Your task to perform on an android device: Open calendar and show me the second week of next month Image 0: 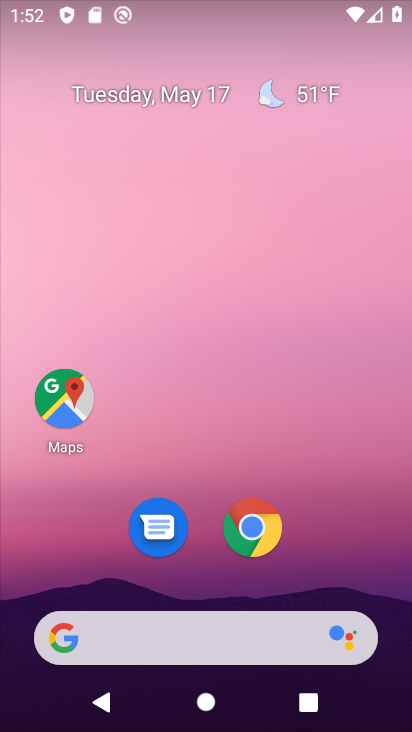
Step 0: drag from (341, 575) to (280, 25)
Your task to perform on an android device: Open calendar and show me the second week of next month Image 1: 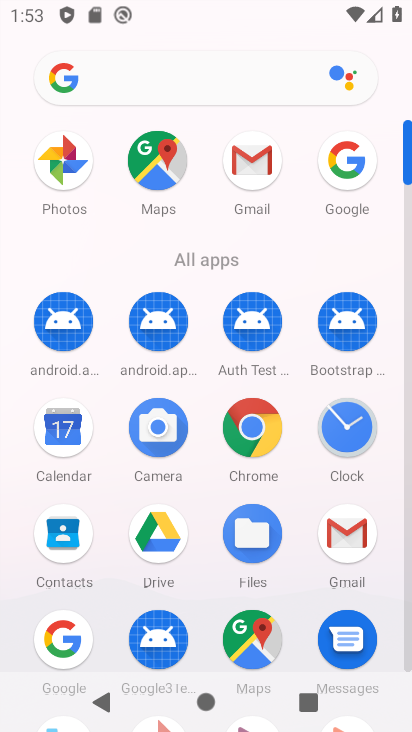
Step 1: drag from (201, 503) to (209, 289)
Your task to perform on an android device: Open calendar and show me the second week of next month Image 2: 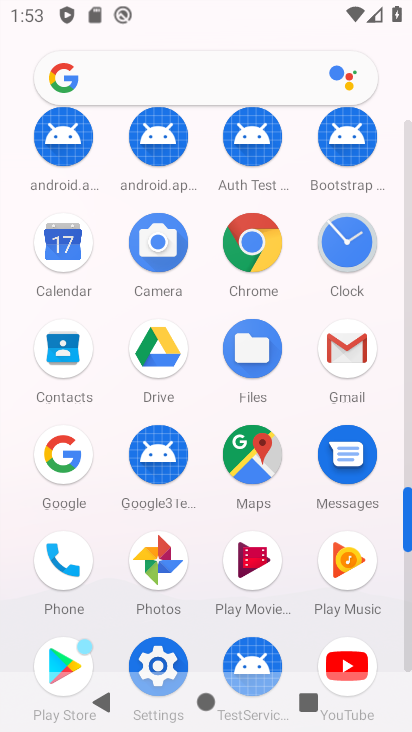
Step 2: click (60, 244)
Your task to perform on an android device: Open calendar and show me the second week of next month Image 3: 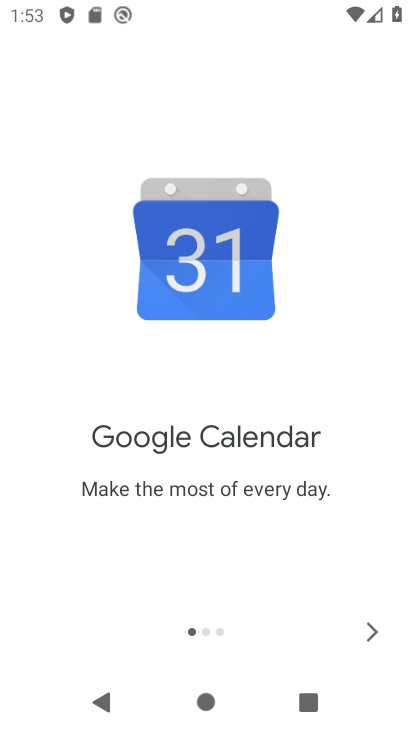
Step 3: click (373, 626)
Your task to perform on an android device: Open calendar and show me the second week of next month Image 4: 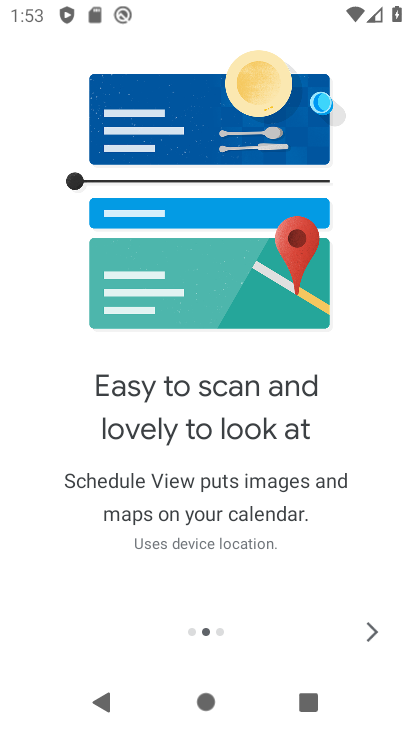
Step 4: click (373, 626)
Your task to perform on an android device: Open calendar and show me the second week of next month Image 5: 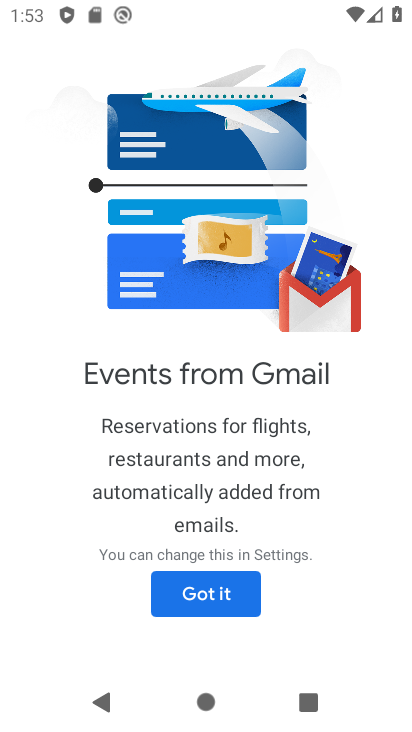
Step 5: click (212, 591)
Your task to perform on an android device: Open calendar and show me the second week of next month Image 6: 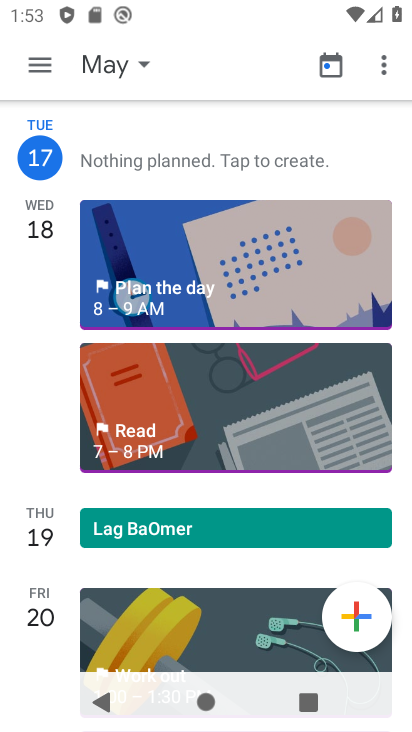
Step 6: click (140, 62)
Your task to perform on an android device: Open calendar and show me the second week of next month Image 7: 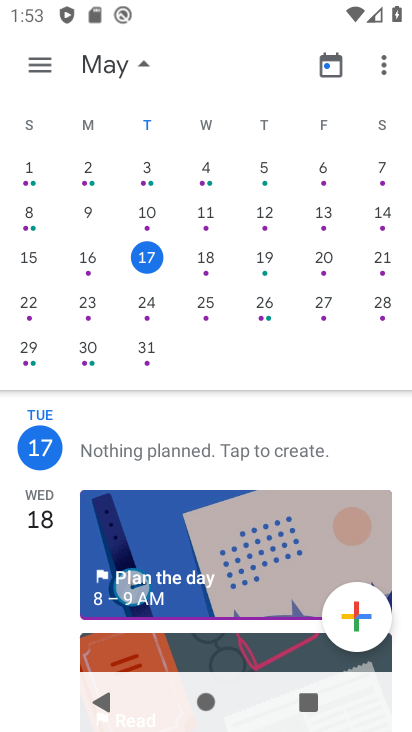
Step 7: drag from (359, 240) to (0, 207)
Your task to perform on an android device: Open calendar and show me the second week of next month Image 8: 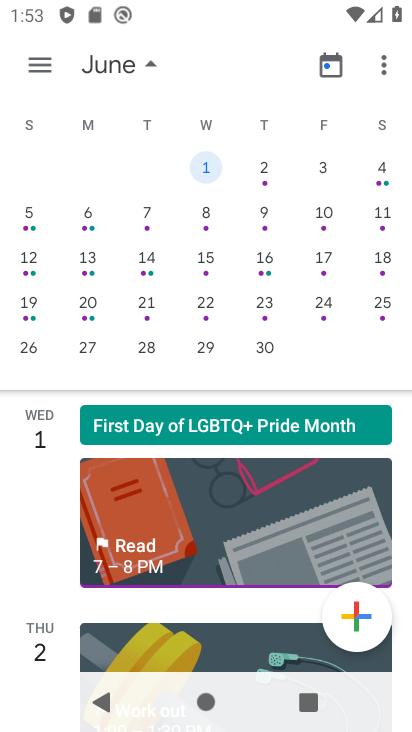
Step 8: click (89, 257)
Your task to perform on an android device: Open calendar and show me the second week of next month Image 9: 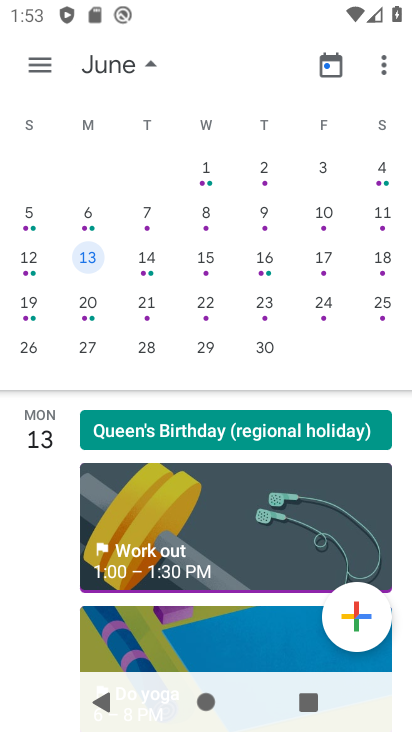
Step 9: click (36, 63)
Your task to perform on an android device: Open calendar and show me the second week of next month Image 10: 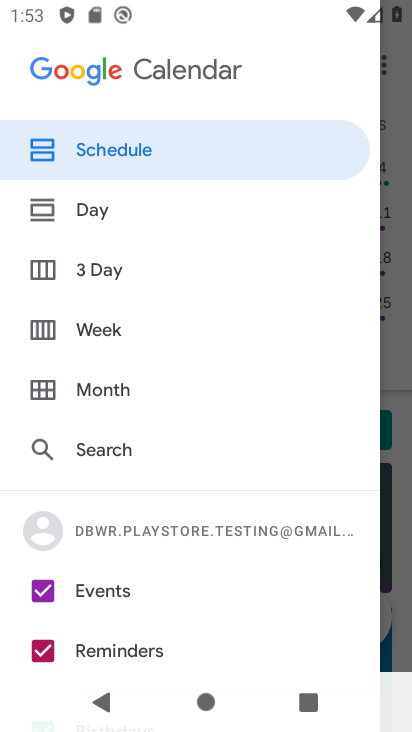
Step 10: click (108, 327)
Your task to perform on an android device: Open calendar and show me the second week of next month Image 11: 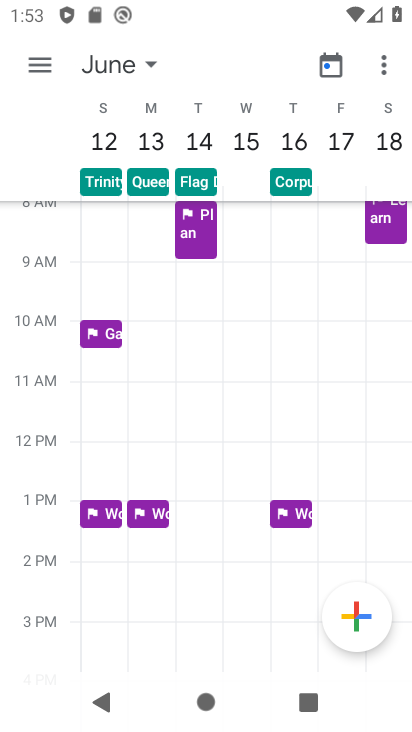
Step 11: task complete